Your task to perform on an android device: Search for sushi restaurants on Maps Image 0: 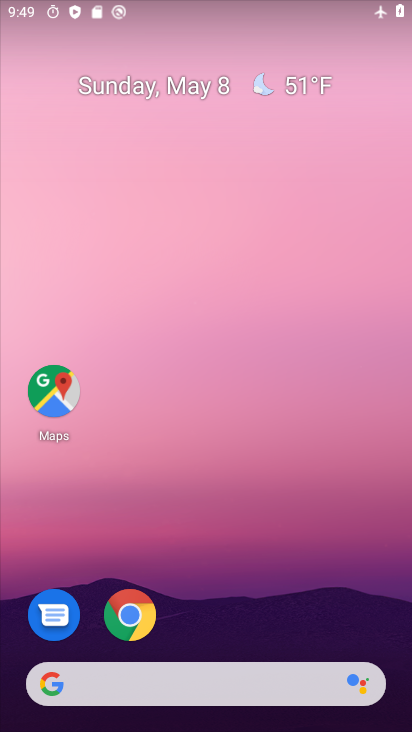
Step 0: click (36, 394)
Your task to perform on an android device: Search for sushi restaurants on Maps Image 1: 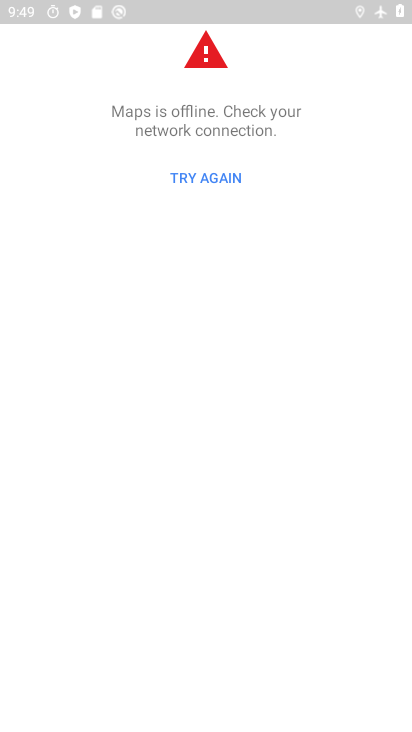
Step 1: task complete